Your task to perform on an android device: Open display settings Image 0: 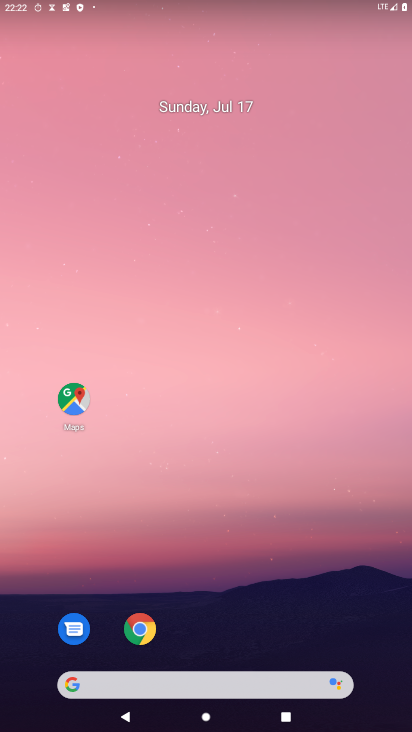
Step 0: drag from (223, 690) to (246, 22)
Your task to perform on an android device: Open display settings Image 1: 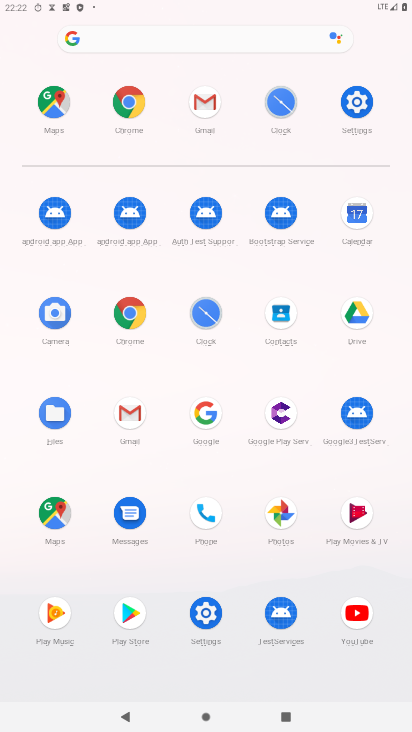
Step 1: click (358, 105)
Your task to perform on an android device: Open display settings Image 2: 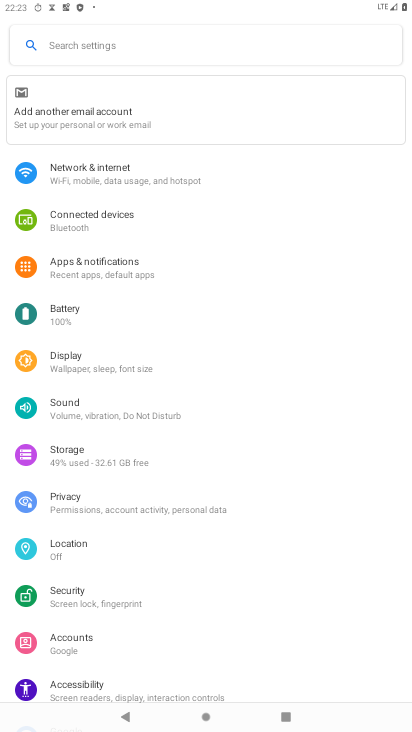
Step 2: click (76, 363)
Your task to perform on an android device: Open display settings Image 3: 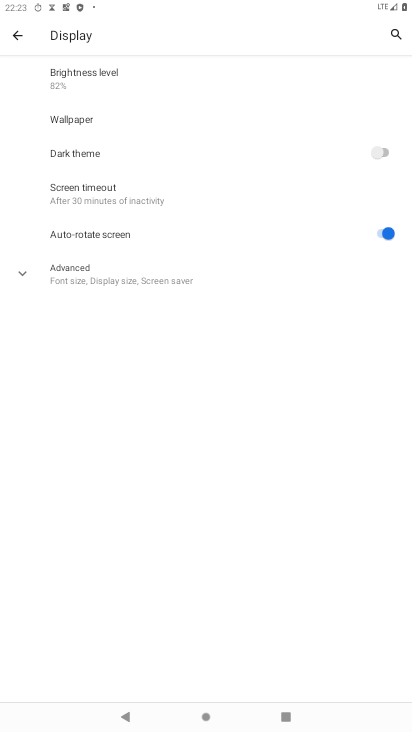
Step 3: task complete